Your task to perform on an android device: Open calendar and show me the second week of next month Image 0: 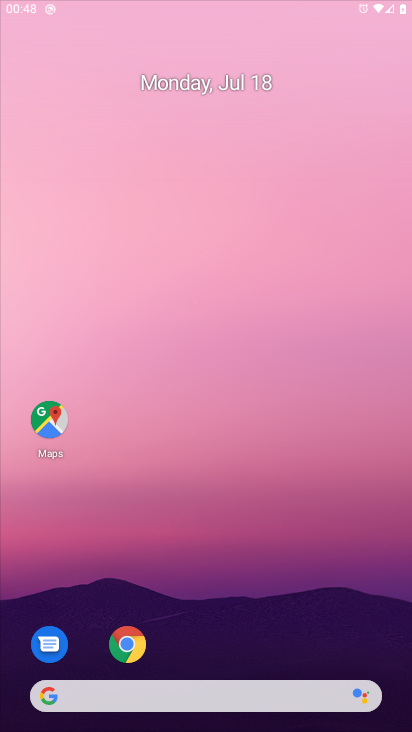
Step 0: press home button
Your task to perform on an android device: Open calendar and show me the second week of next month Image 1: 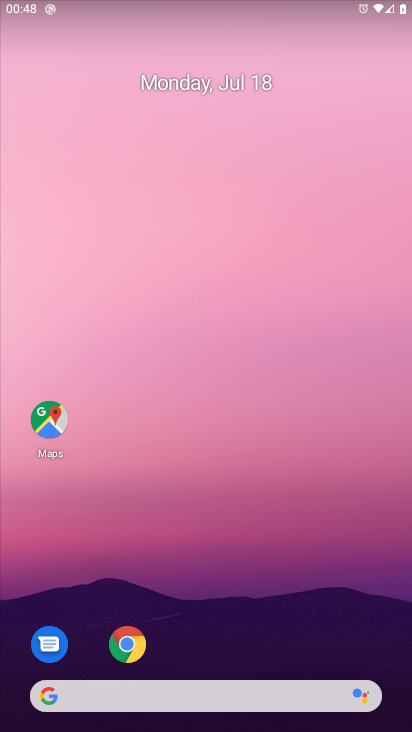
Step 1: press home button
Your task to perform on an android device: Open calendar and show me the second week of next month Image 2: 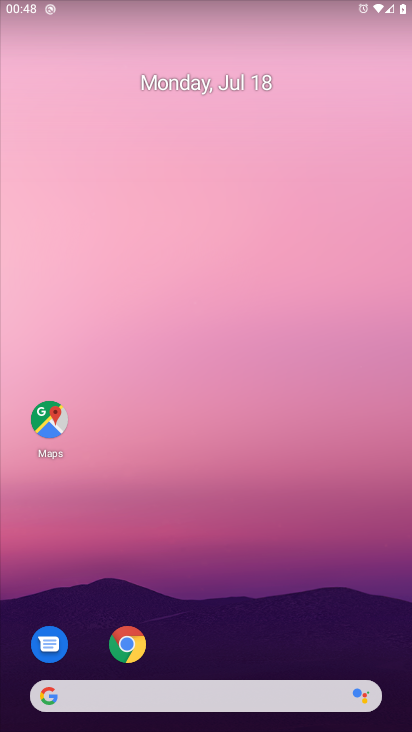
Step 2: drag from (309, 601) to (281, 132)
Your task to perform on an android device: Open calendar and show me the second week of next month Image 3: 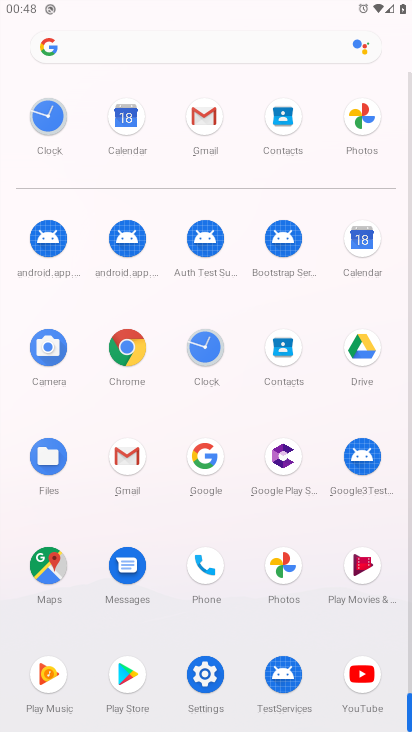
Step 3: click (358, 247)
Your task to perform on an android device: Open calendar and show me the second week of next month Image 4: 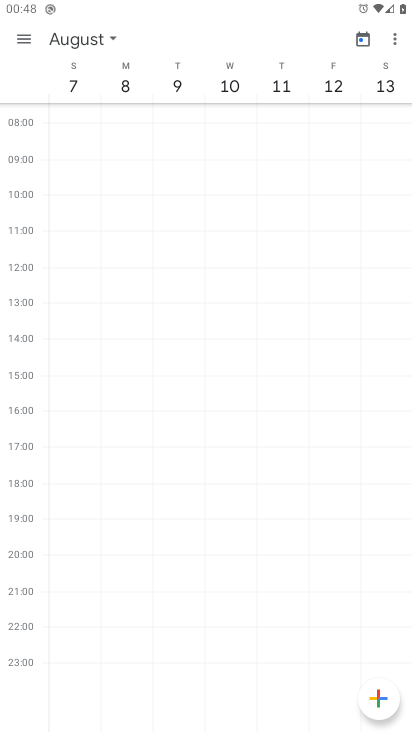
Step 4: task complete